Your task to perform on an android device: Go to Maps Image 0: 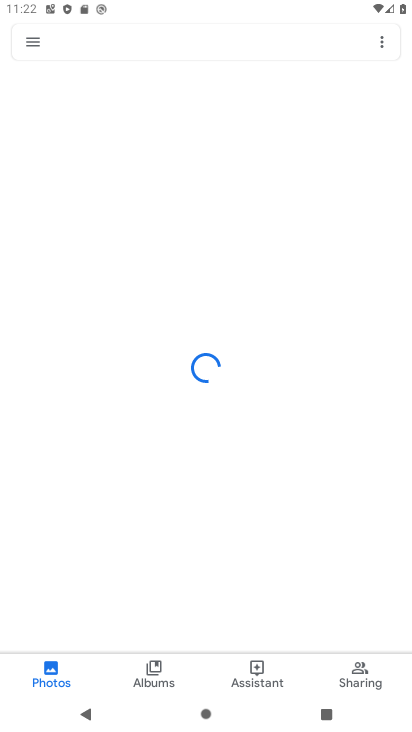
Step 0: press home button
Your task to perform on an android device: Go to Maps Image 1: 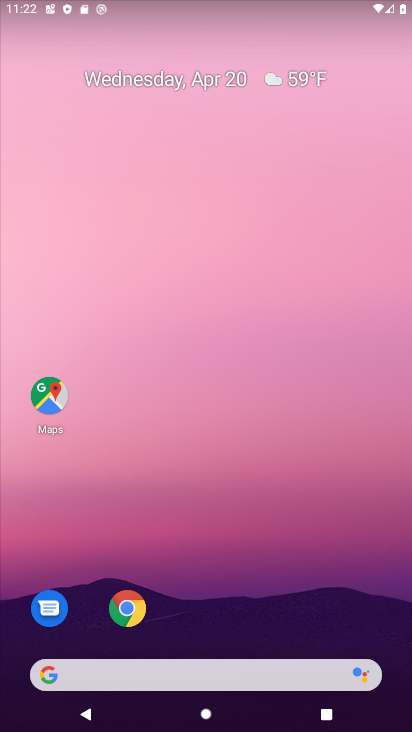
Step 1: click (51, 397)
Your task to perform on an android device: Go to Maps Image 2: 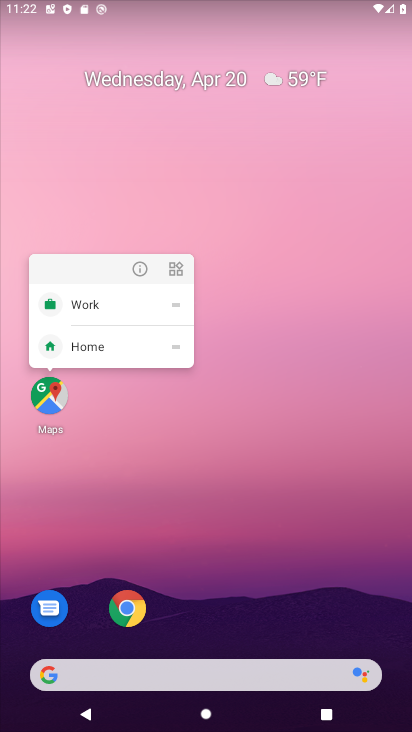
Step 2: click (173, 476)
Your task to perform on an android device: Go to Maps Image 3: 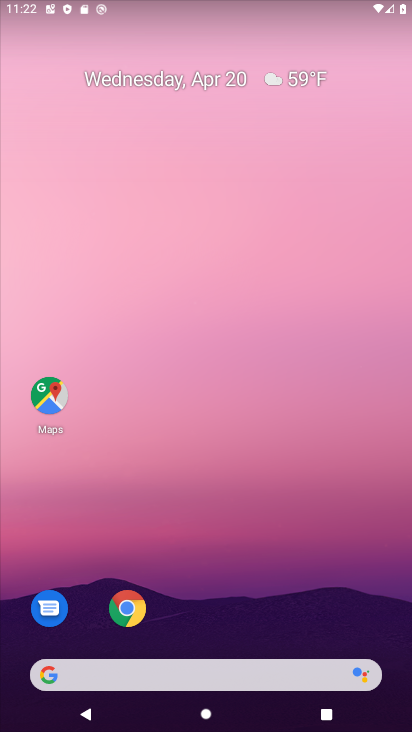
Step 3: click (50, 397)
Your task to perform on an android device: Go to Maps Image 4: 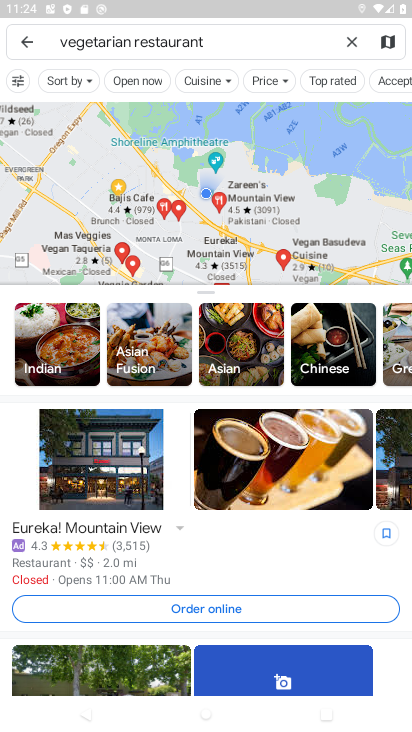
Step 4: task complete